Your task to perform on an android device: turn off sleep mode Image 0: 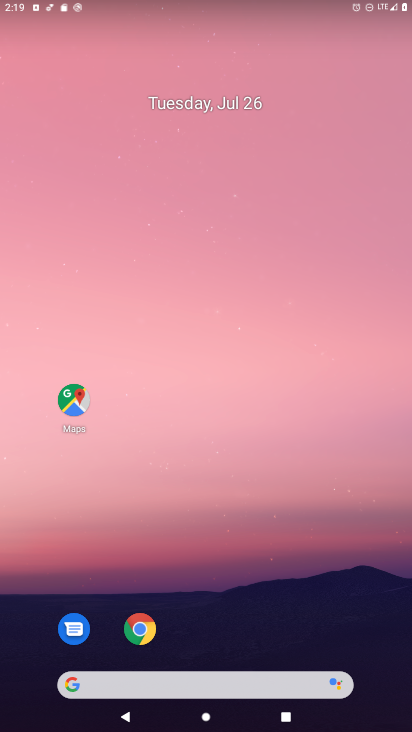
Step 0: drag from (385, 663) to (303, 102)
Your task to perform on an android device: turn off sleep mode Image 1: 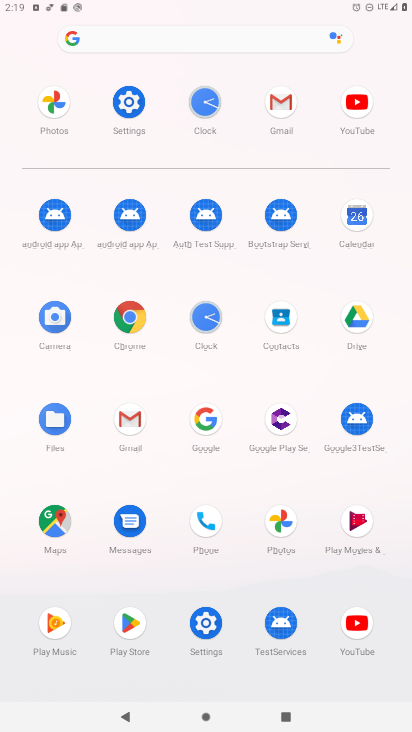
Step 1: click (206, 622)
Your task to perform on an android device: turn off sleep mode Image 2: 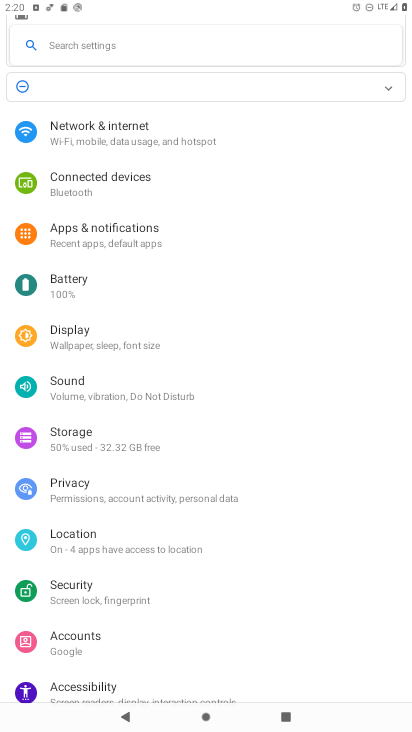
Step 2: click (70, 341)
Your task to perform on an android device: turn off sleep mode Image 3: 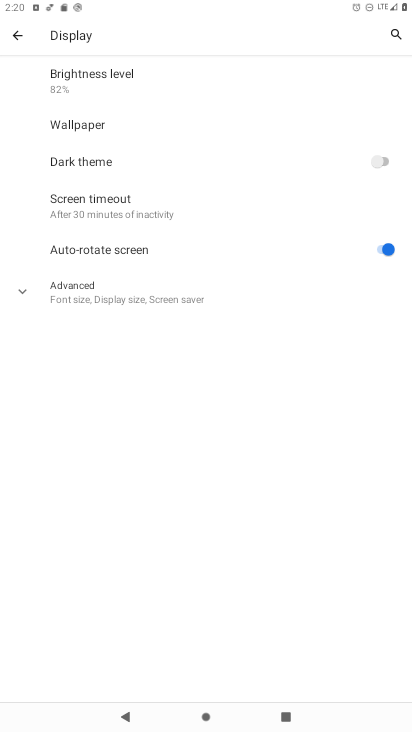
Step 3: click (21, 290)
Your task to perform on an android device: turn off sleep mode Image 4: 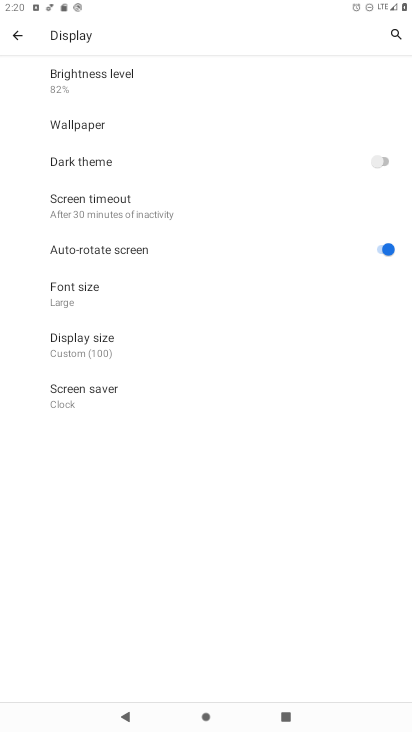
Step 4: task complete